Your task to perform on an android device: toggle notification dots Image 0: 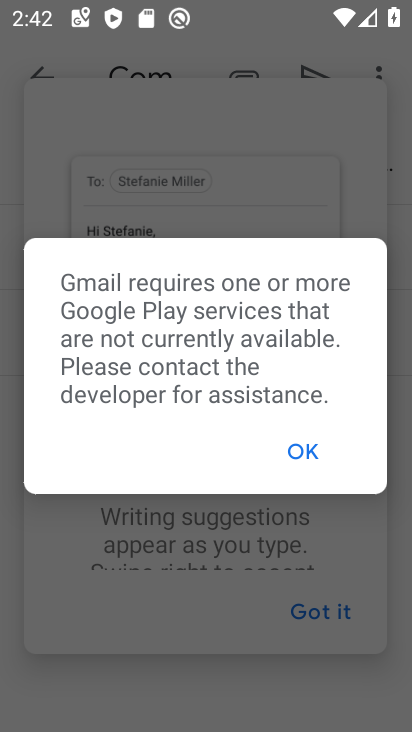
Step 0: press home button
Your task to perform on an android device: toggle notification dots Image 1: 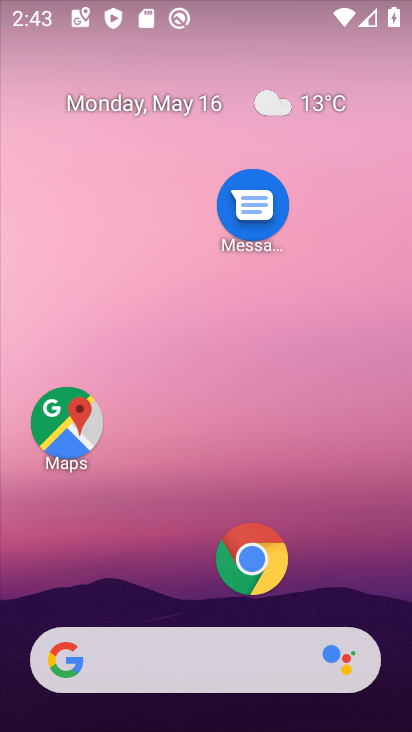
Step 1: drag from (173, 595) to (227, 167)
Your task to perform on an android device: toggle notification dots Image 2: 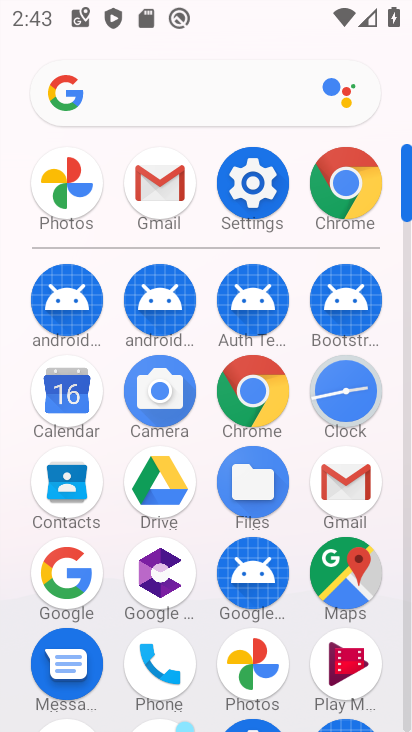
Step 2: click (250, 178)
Your task to perform on an android device: toggle notification dots Image 3: 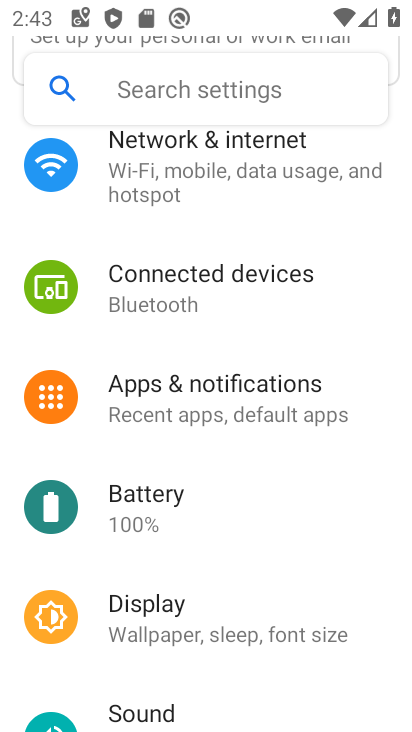
Step 3: click (269, 393)
Your task to perform on an android device: toggle notification dots Image 4: 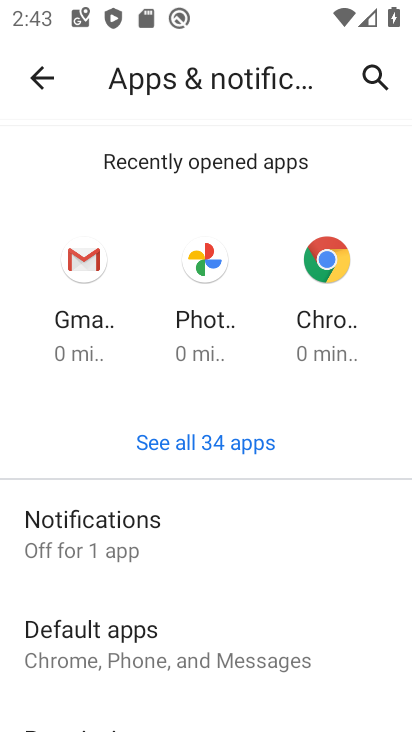
Step 4: click (128, 537)
Your task to perform on an android device: toggle notification dots Image 5: 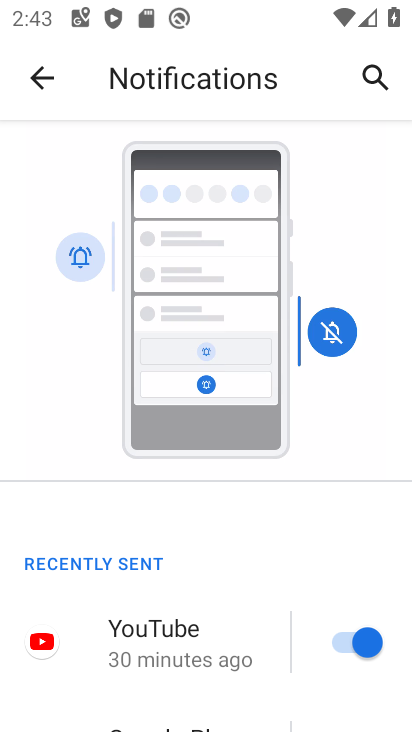
Step 5: drag from (190, 611) to (200, 188)
Your task to perform on an android device: toggle notification dots Image 6: 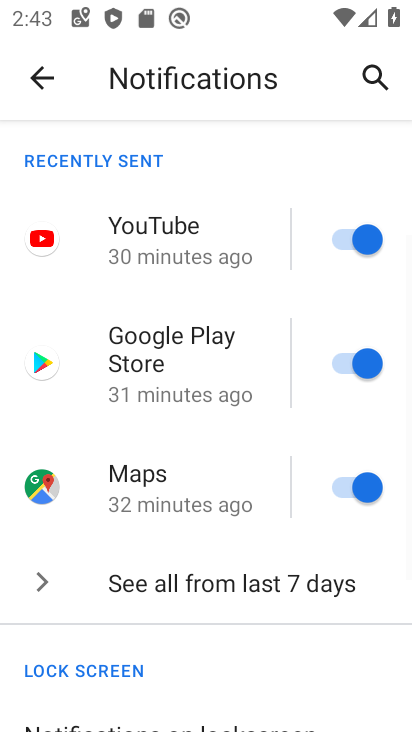
Step 6: drag from (204, 321) to (230, 200)
Your task to perform on an android device: toggle notification dots Image 7: 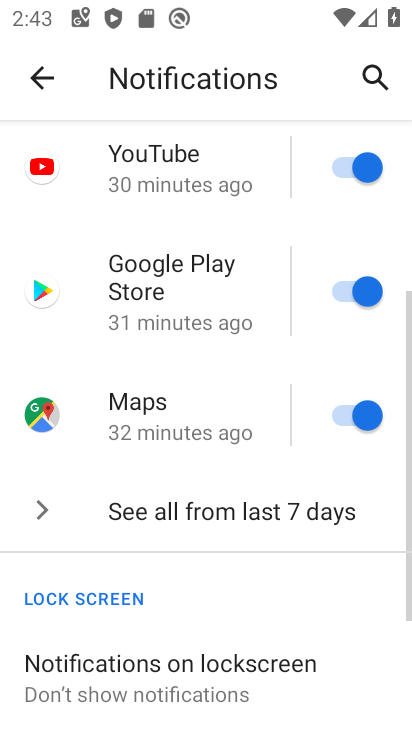
Step 7: drag from (214, 576) to (236, 163)
Your task to perform on an android device: toggle notification dots Image 8: 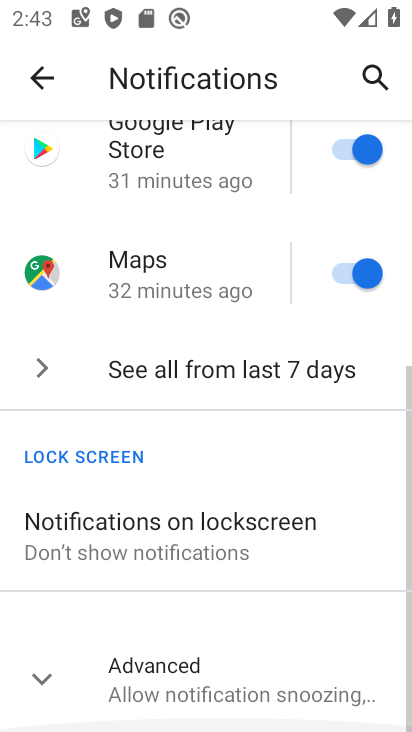
Step 8: drag from (191, 577) to (212, 235)
Your task to perform on an android device: toggle notification dots Image 9: 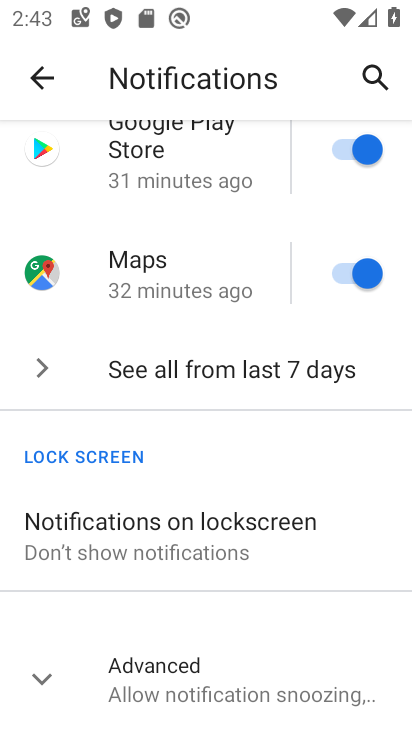
Step 9: drag from (257, 660) to (262, 359)
Your task to perform on an android device: toggle notification dots Image 10: 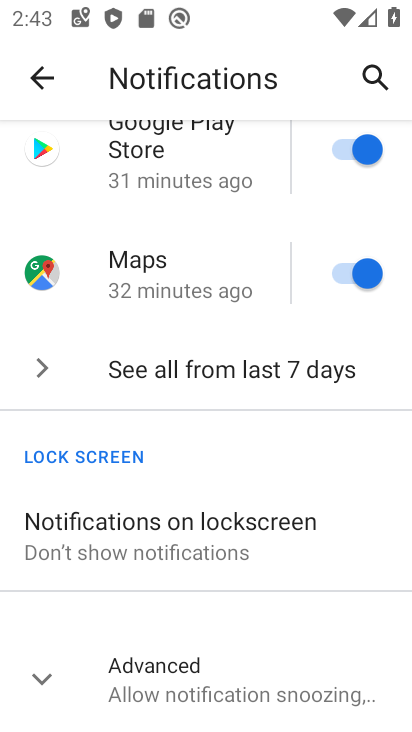
Step 10: click (38, 673)
Your task to perform on an android device: toggle notification dots Image 11: 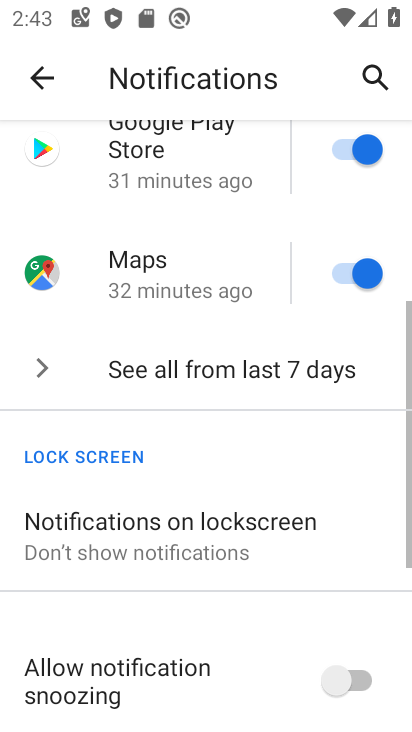
Step 11: drag from (157, 639) to (217, 150)
Your task to perform on an android device: toggle notification dots Image 12: 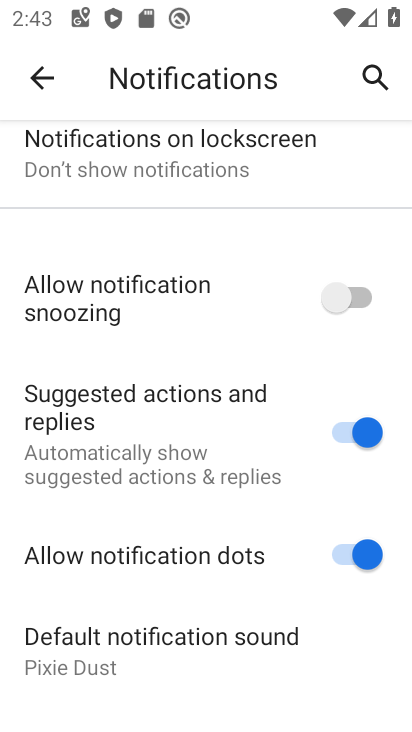
Step 12: drag from (227, 614) to (272, 176)
Your task to perform on an android device: toggle notification dots Image 13: 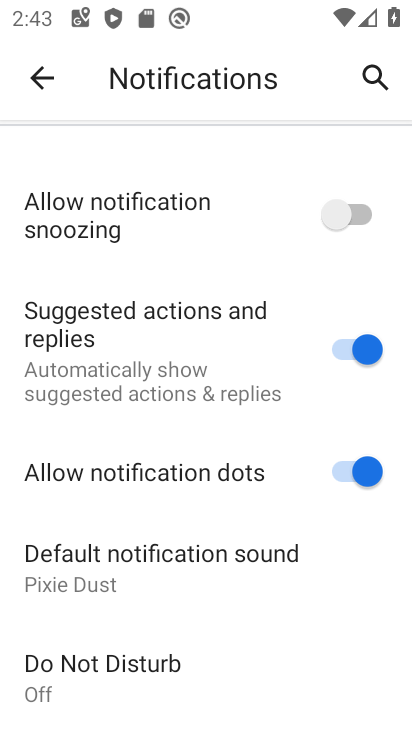
Step 13: click (343, 474)
Your task to perform on an android device: toggle notification dots Image 14: 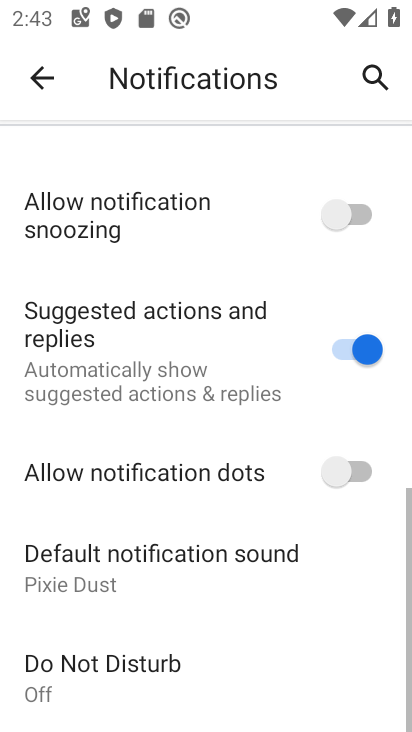
Step 14: task complete